Your task to perform on an android device: Go to Wikipedia Image 0: 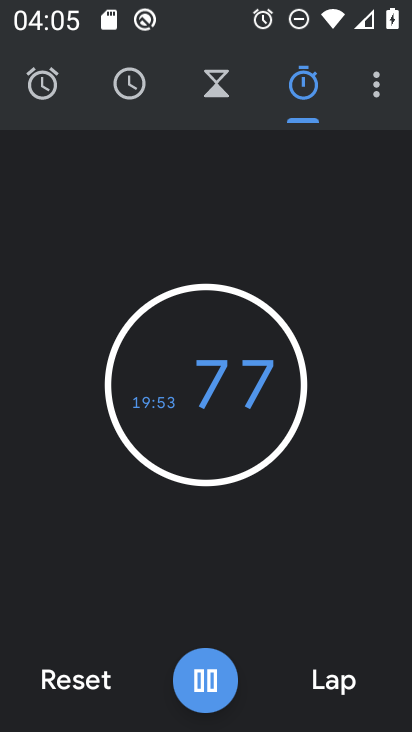
Step 0: press home button
Your task to perform on an android device: Go to Wikipedia Image 1: 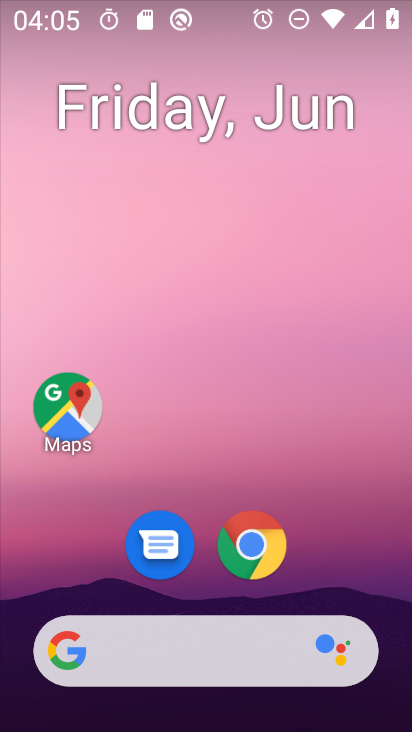
Step 1: click (252, 552)
Your task to perform on an android device: Go to Wikipedia Image 2: 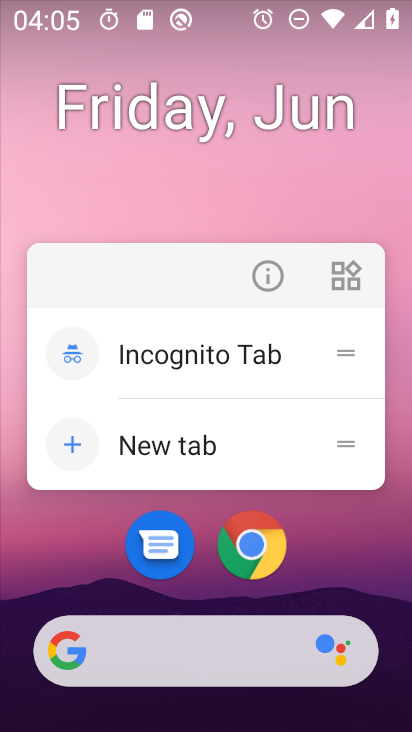
Step 2: click (256, 546)
Your task to perform on an android device: Go to Wikipedia Image 3: 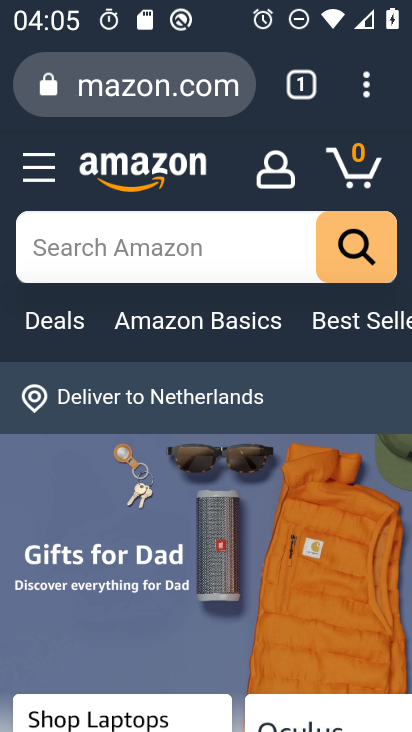
Step 3: click (166, 64)
Your task to perform on an android device: Go to Wikipedia Image 4: 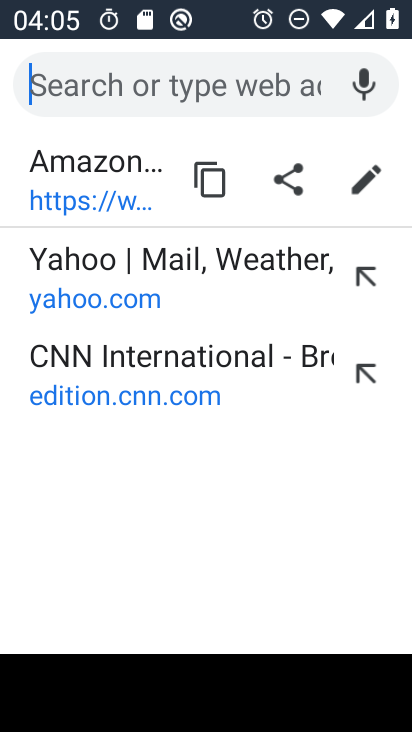
Step 4: type "wikipedia"
Your task to perform on an android device: Go to Wikipedia Image 5: 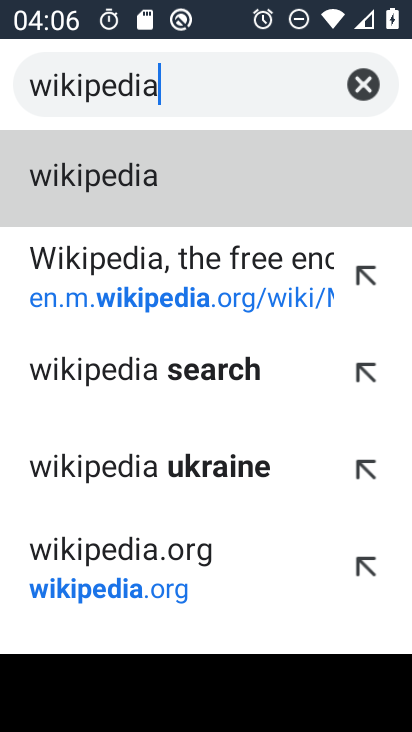
Step 5: click (112, 178)
Your task to perform on an android device: Go to Wikipedia Image 6: 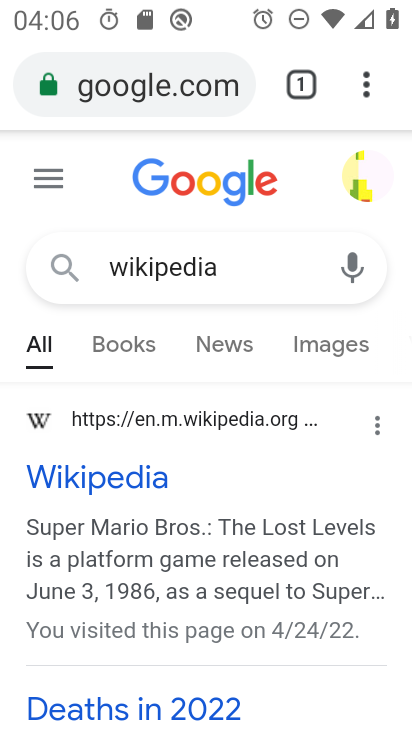
Step 6: click (113, 478)
Your task to perform on an android device: Go to Wikipedia Image 7: 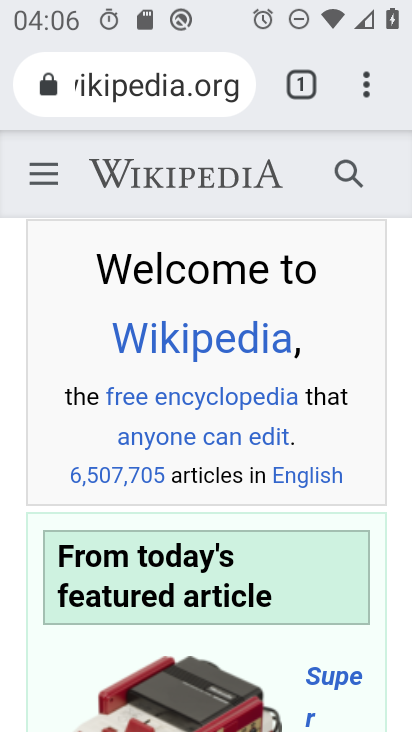
Step 7: task complete